Your task to perform on an android device: change the clock style Image 0: 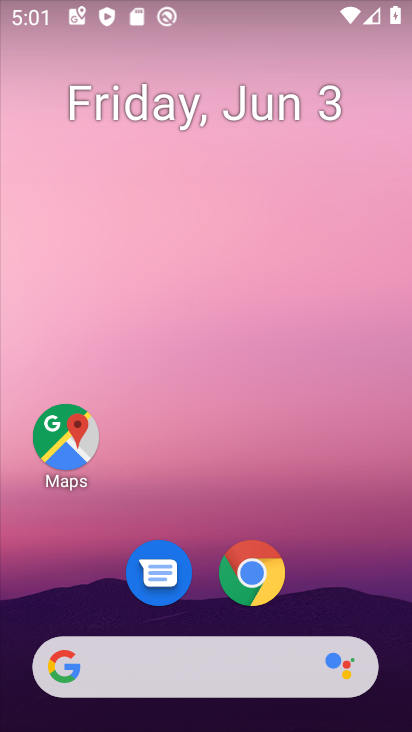
Step 0: drag from (314, 601) to (268, 193)
Your task to perform on an android device: change the clock style Image 1: 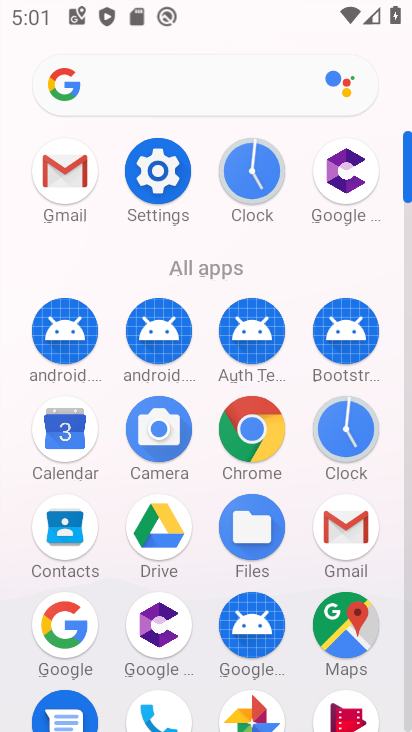
Step 1: click (342, 435)
Your task to perform on an android device: change the clock style Image 2: 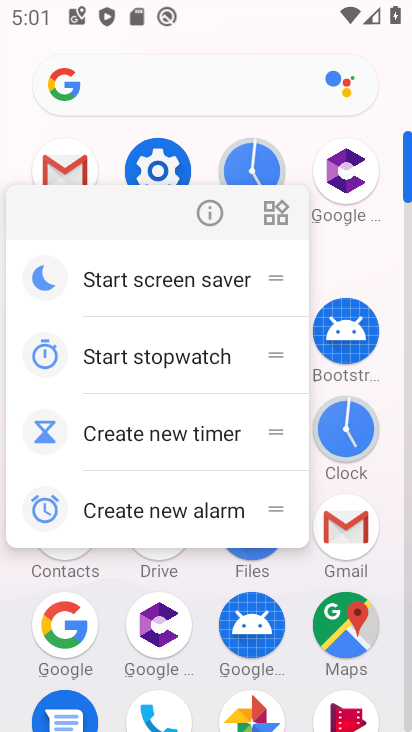
Step 2: click (343, 435)
Your task to perform on an android device: change the clock style Image 3: 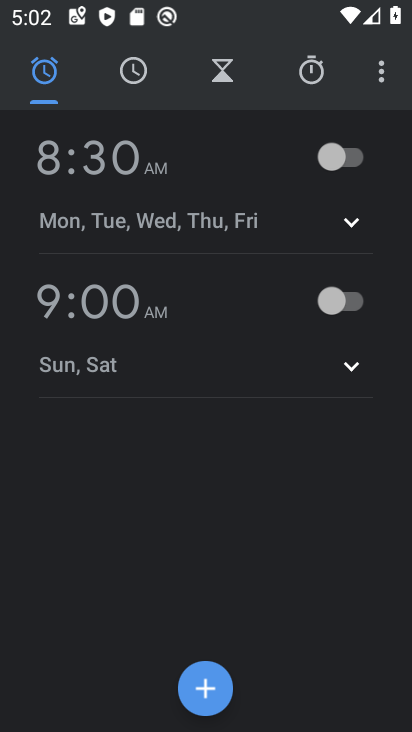
Step 3: click (380, 79)
Your task to perform on an android device: change the clock style Image 4: 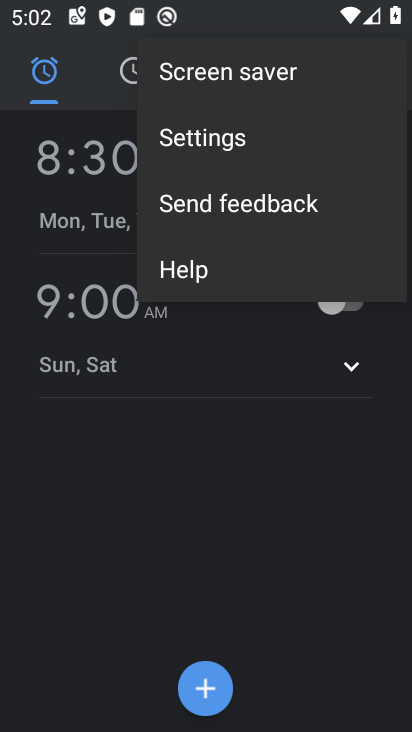
Step 4: click (205, 137)
Your task to perform on an android device: change the clock style Image 5: 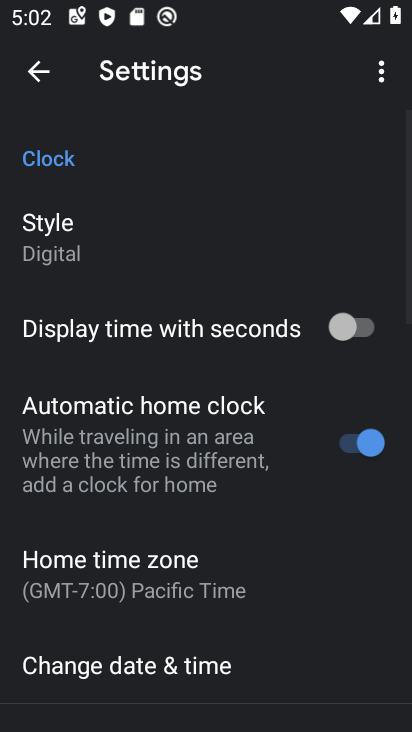
Step 5: click (68, 246)
Your task to perform on an android device: change the clock style Image 6: 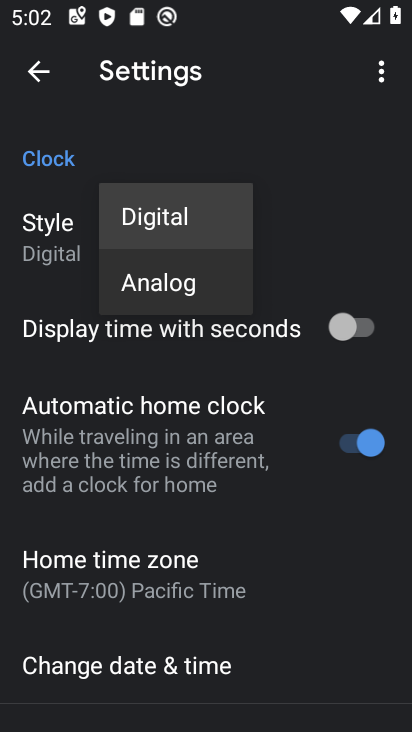
Step 6: click (131, 288)
Your task to perform on an android device: change the clock style Image 7: 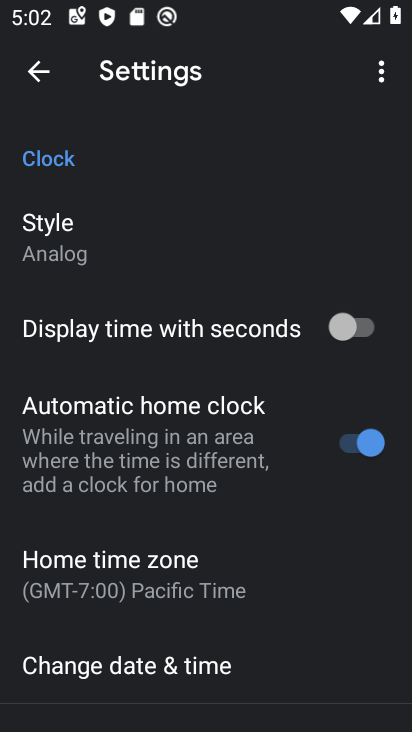
Step 7: task complete